Your task to perform on an android device: Open Chrome and go to the settings page Image 0: 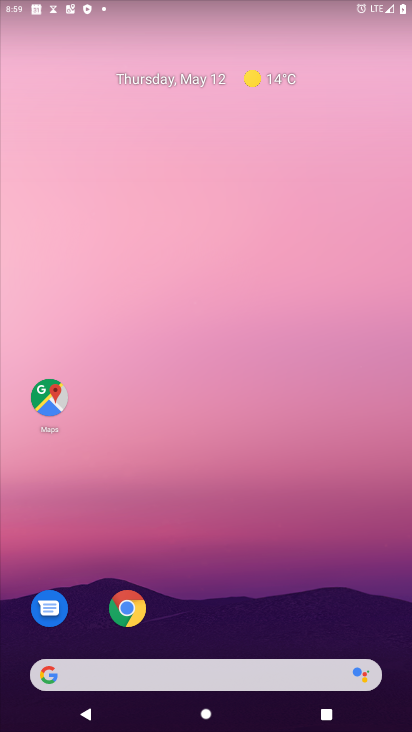
Step 0: drag from (218, 667) to (179, 310)
Your task to perform on an android device: Open Chrome and go to the settings page Image 1: 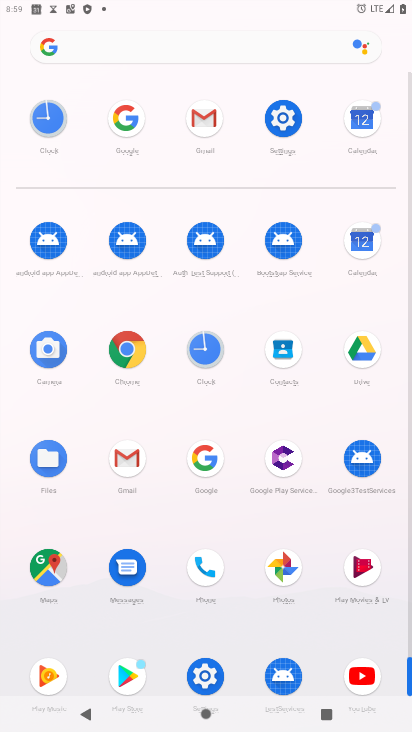
Step 1: click (123, 358)
Your task to perform on an android device: Open Chrome and go to the settings page Image 2: 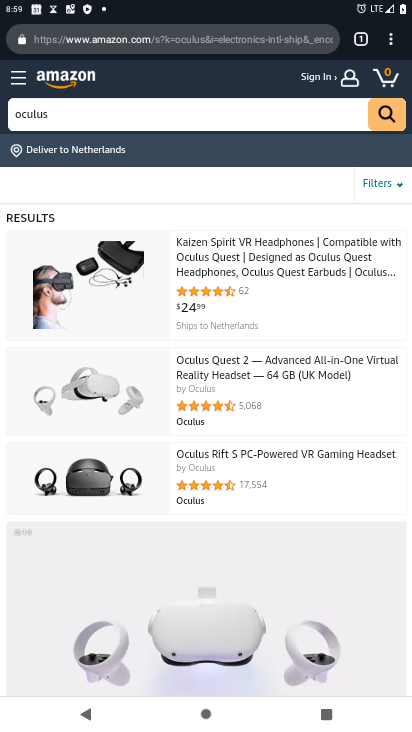
Step 2: click (393, 37)
Your task to perform on an android device: Open Chrome and go to the settings page Image 3: 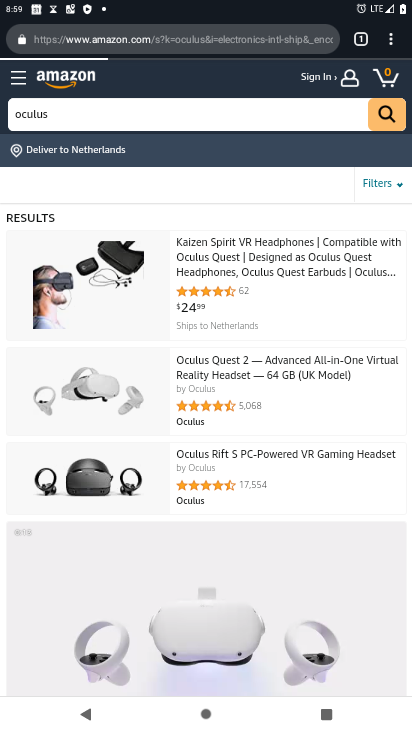
Step 3: click (393, 37)
Your task to perform on an android device: Open Chrome and go to the settings page Image 4: 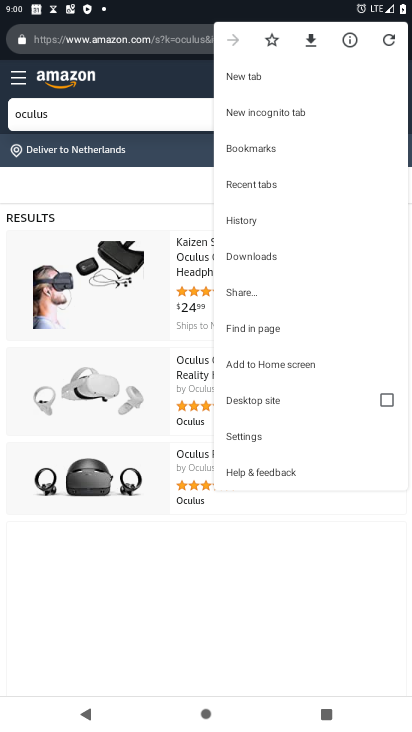
Step 4: click (242, 435)
Your task to perform on an android device: Open Chrome and go to the settings page Image 5: 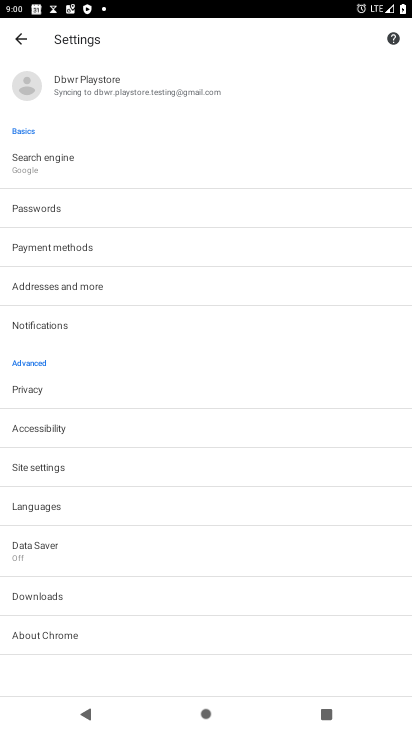
Step 5: task complete